Your task to perform on an android device: see sites visited before in the chrome app Image 0: 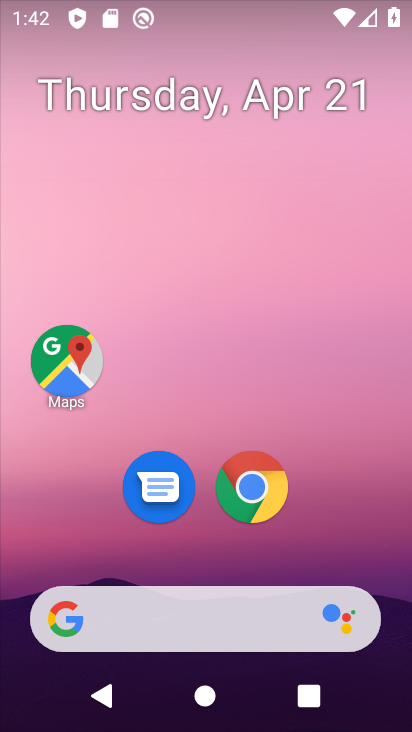
Step 0: drag from (202, 541) to (235, 158)
Your task to perform on an android device: see sites visited before in the chrome app Image 1: 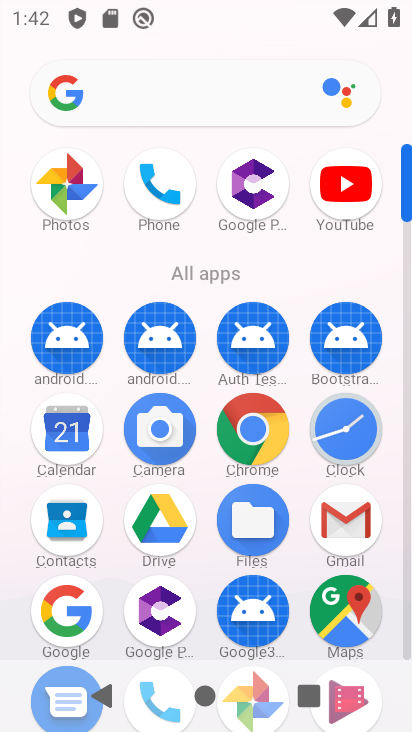
Step 1: click (252, 429)
Your task to perform on an android device: see sites visited before in the chrome app Image 2: 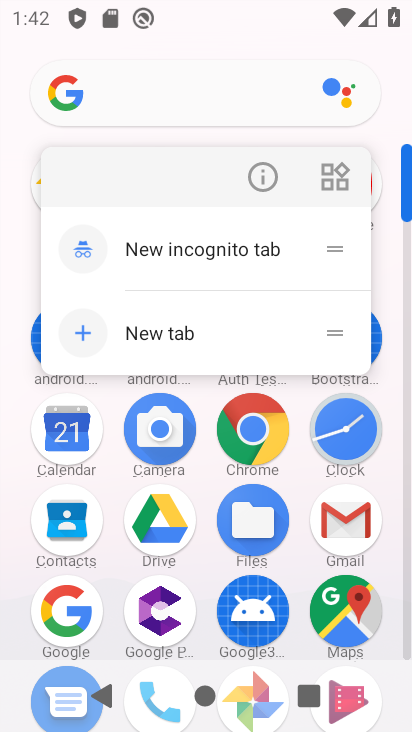
Step 2: click (261, 170)
Your task to perform on an android device: see sites visited before in the chrome app Image 3: 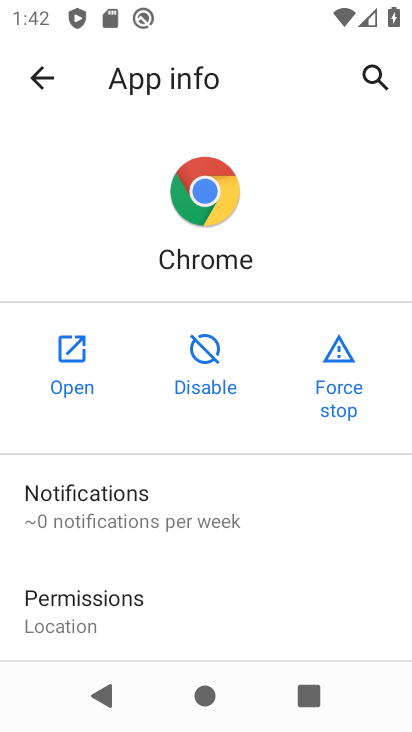
Step 3: click (66, 358)
Your task to perform on an android device: see sites visited before in the chrome app Image 4: 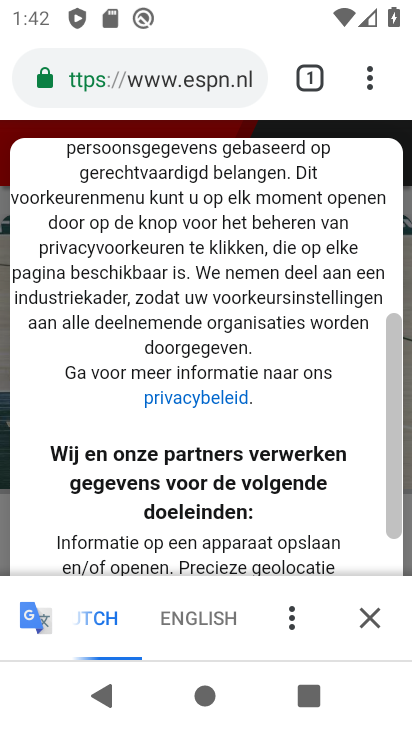
Step 4: click (360, 98)
Your task to perform on an android device: see sites visited before in the chrome app Image 5: 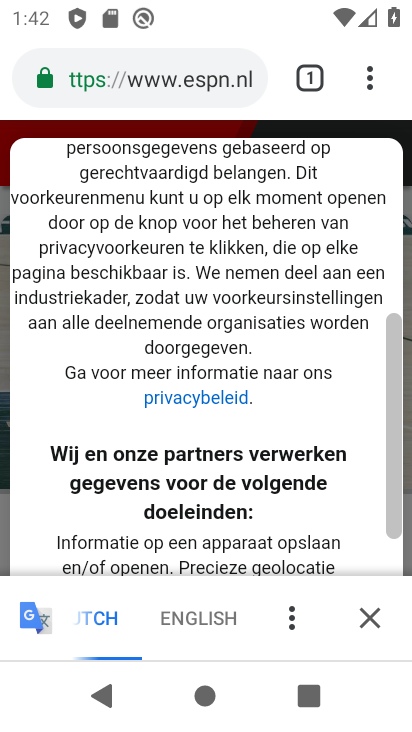
Step 5: drag from (373, 81) to (206, 462)
Your task to perform on an android device: see sites visited before in the chrome app Image 6: 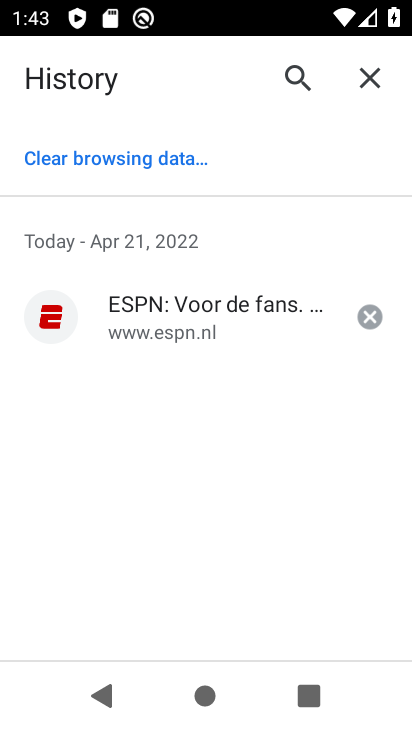
Step 6: click (367, 311)
Your task to perform on an android device: see sites visited before in the chrome app Image 7: 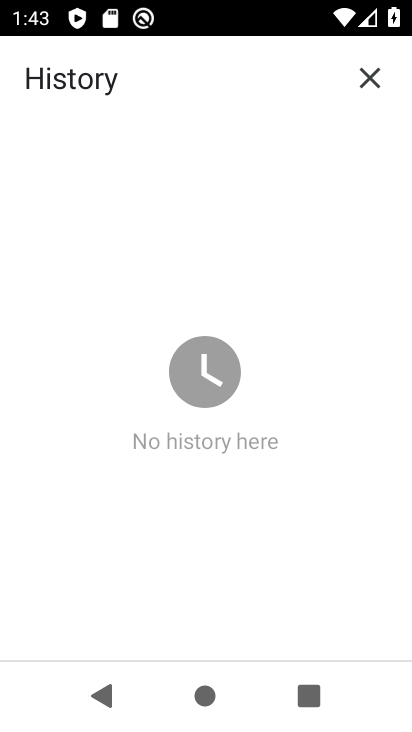
Step 7: task complete